Your task to perform on an android device: turn on the 12-hour format for clock Image 0: 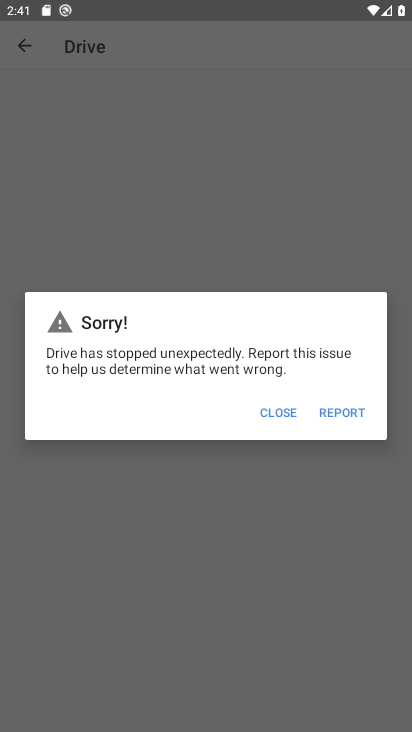
Step 0: click (271, 409)
Your task to perform on an android device: turn on the 12-hour format for clock Image 1: 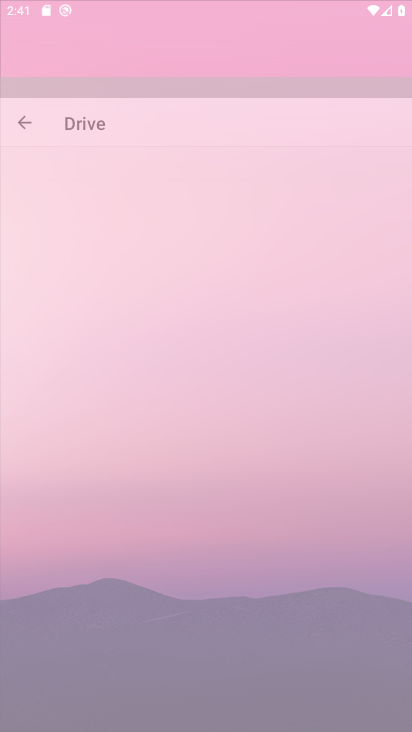
Step 1: click (284, 406)
Your task to perform on an android device: turn on the 12-hour format for clock Image 2: 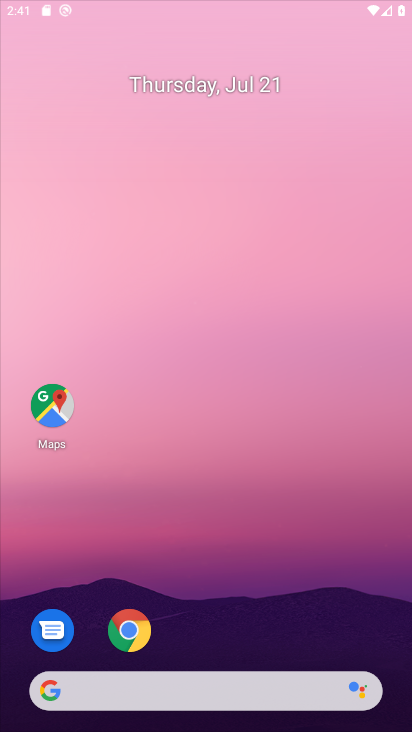
Step 2: click (284, 406)
Your task to perform on an android device: turn on the 12-hour format for clock Image 3: 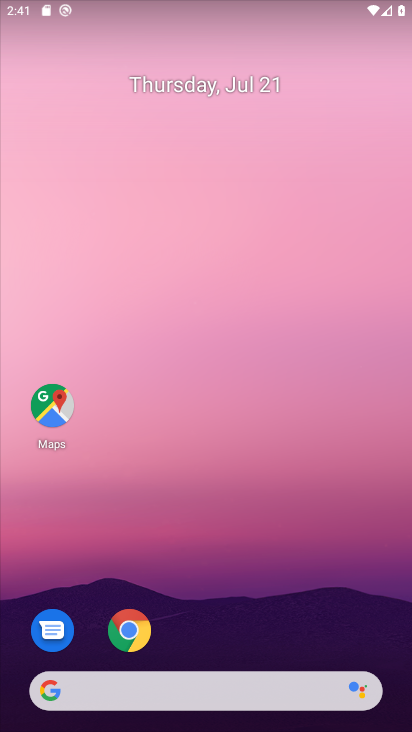
Step 3: click (205, 240)
Your task to perform on an android device: turn on the 12-hour format for clock Image 4: 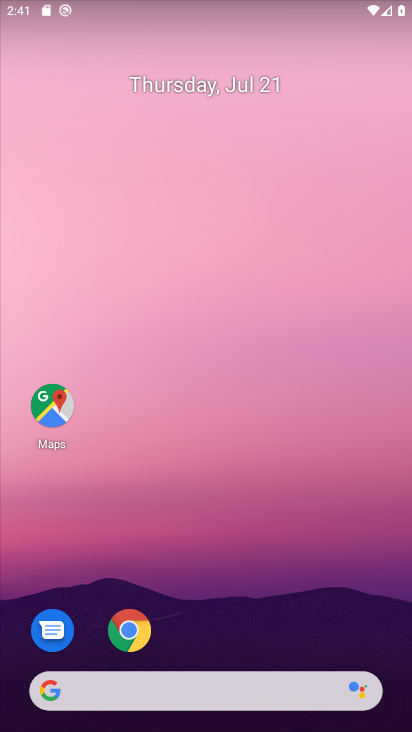
Step 4: drag from (259, 493) to (180, 141)
Your task to perform on an android device: turn on the 12-hour format for clock Image 5: 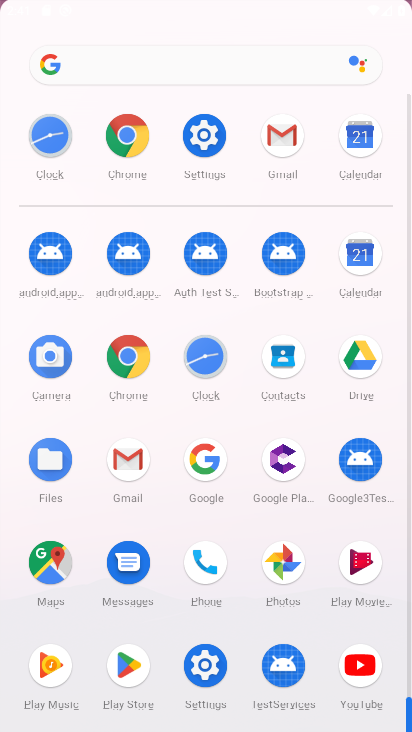
Step 5: drag from (218, 444) to (229, 129)
Your task to perform on an android device: turn on the 12-hour format for clock Image 6: 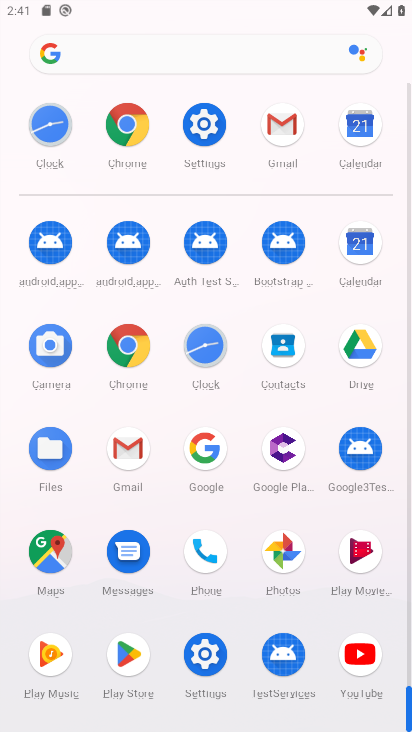
Step 6: click (210, 342)
Your task to perform on an android device: turn on the 12-hour format for clock Image 7: 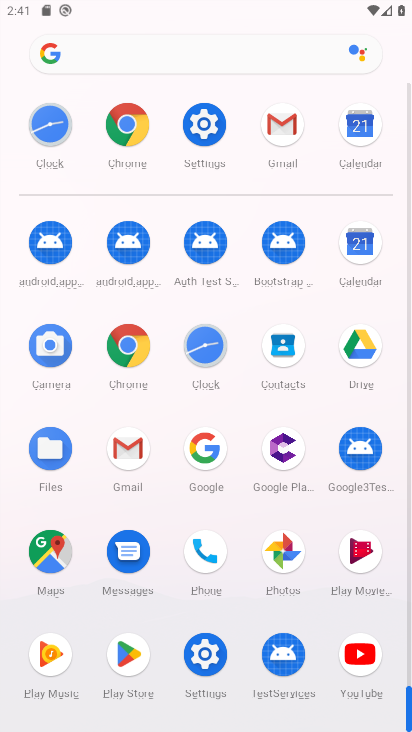
Step 7: click (210, 342)
Your task to perform on an android device: turn on the 12-hour format for clock Image 8: 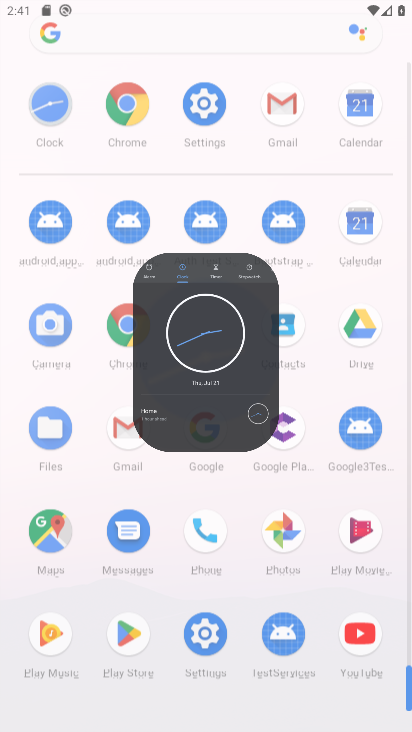
Step 8: click (210, 342)
Your task to perform on an android device: turn on the 12-hour format for clock Image 9: 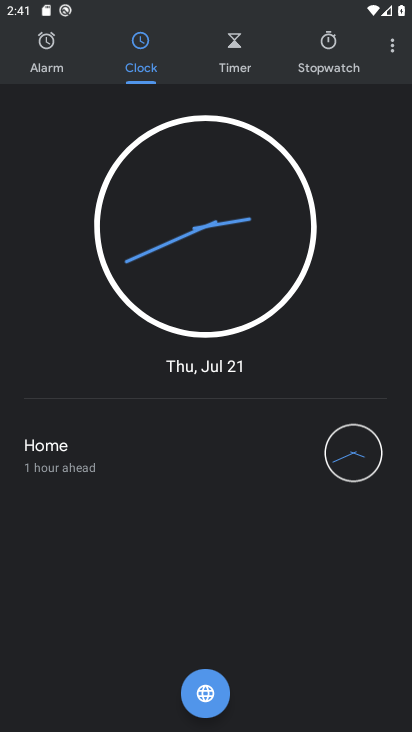
Step 9: click (388, 54)
Your task to perform on an android device: turn on the 12-hour format for clock Image 10: 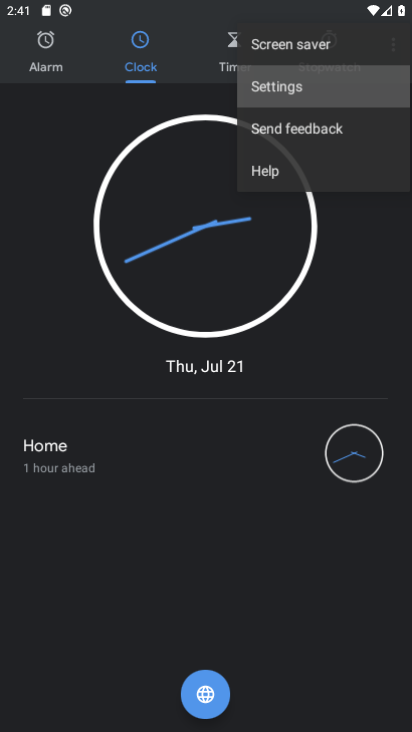
Step 10: click (396, 41)
Your task to perform on an android device: turn on the 12-hour format for clock Image 11: 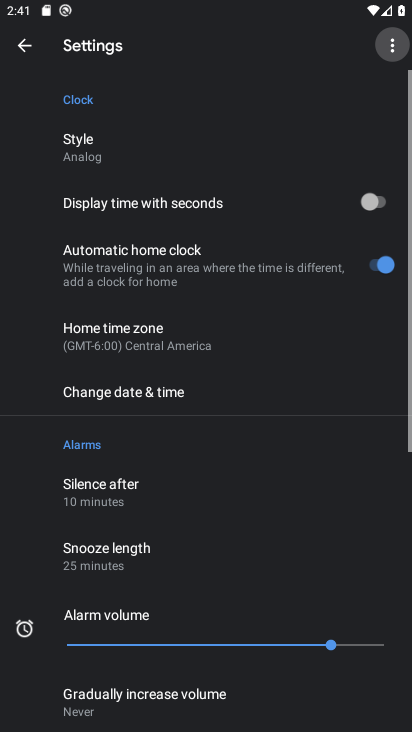
Step 11: click (396, 41)
Your task to perform on an android device: turn on the 12-hour format for clock Image 12: 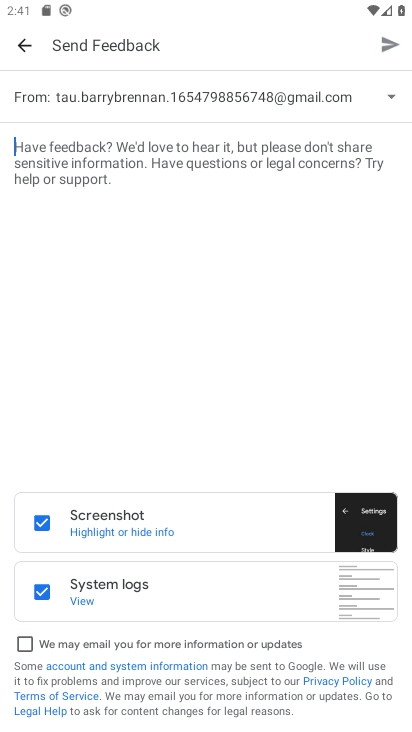
Step 12: click (12, 51)
Your task to perform on an android device: turn on the 12-hour format for clock Image 13: 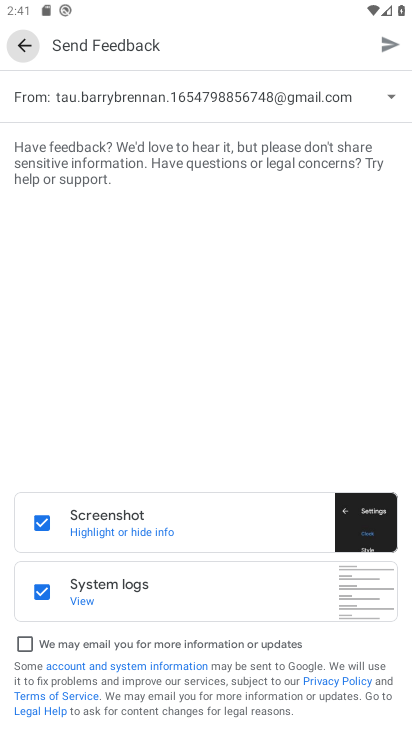
Step 13: click (20, 56)
Your task to perform on an android device: turn on the 12-hour format for clock Image 14: 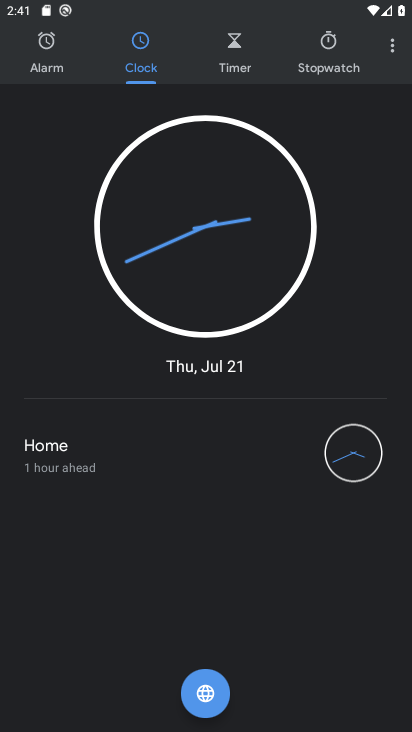
Step 14: click (385, 44)
Your task to perform on an android device: turn on the 12-hour format for clock Image 15: 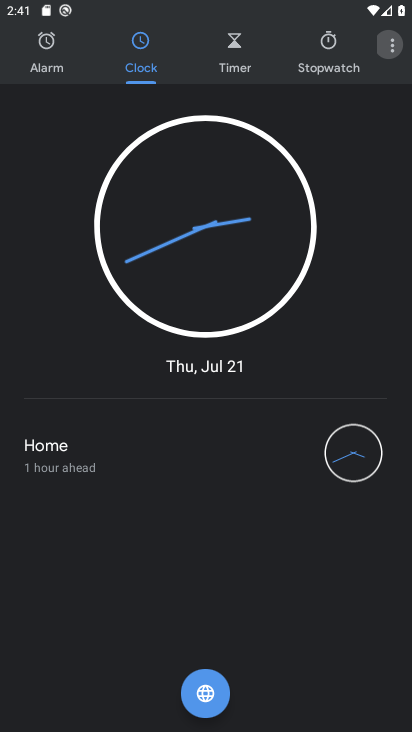
Step 15: click (385, 44)
Your task to perform on an android device: turn on the 12-hour format for clock Image 16: 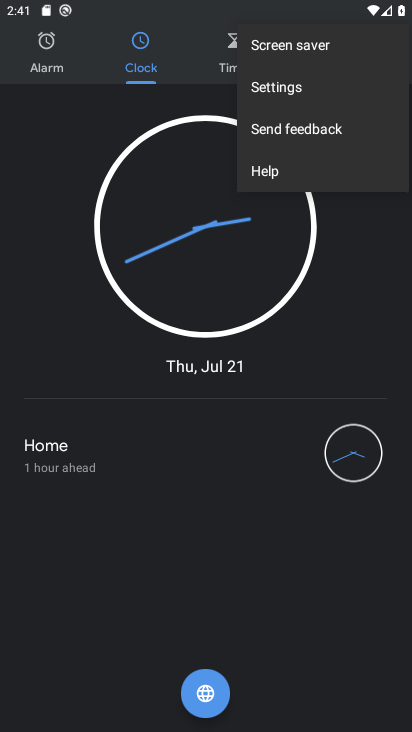
Step 16: click (304, 90)
Your task to perform on an android device: turn on the 12-hour format for clock Image 17: 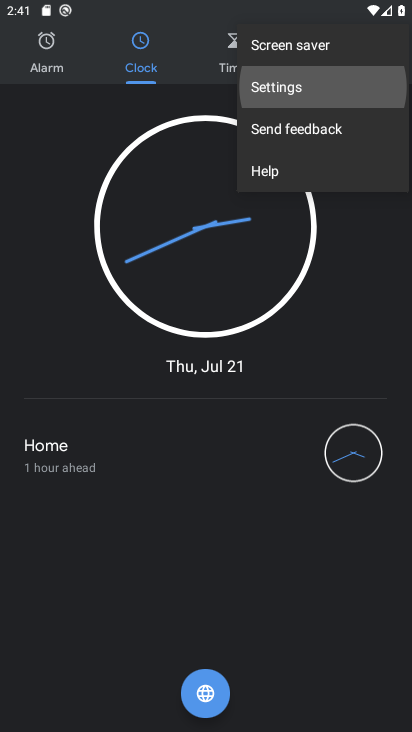
Step 17: click (302, 89)
Your task to perform on an android device: turn on the 12-hour format for clock Image 18: 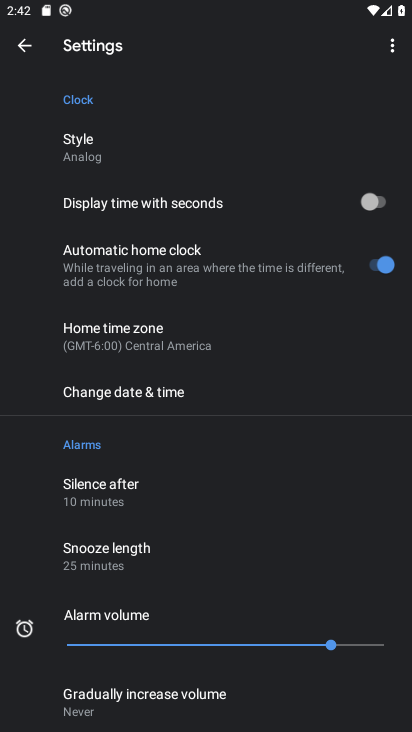
Step 18: click (97, 392)
Your task to perform on an android device: turn on the 12-hour format for clock Image 19: 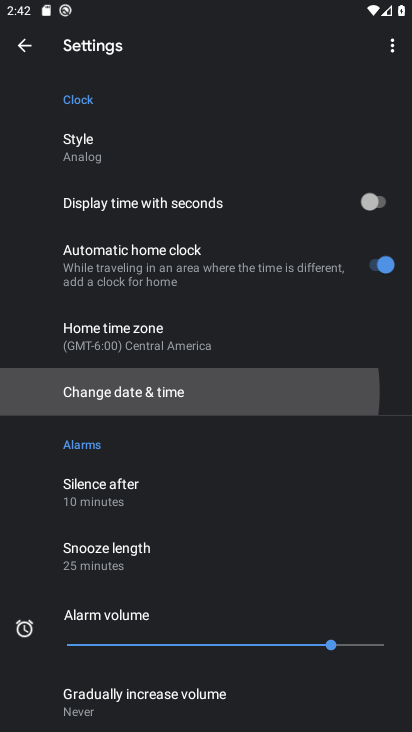
Step 19: click (99, 392)
Your task to perform on an android device: turn on the 12-hour format for clock Image 20: 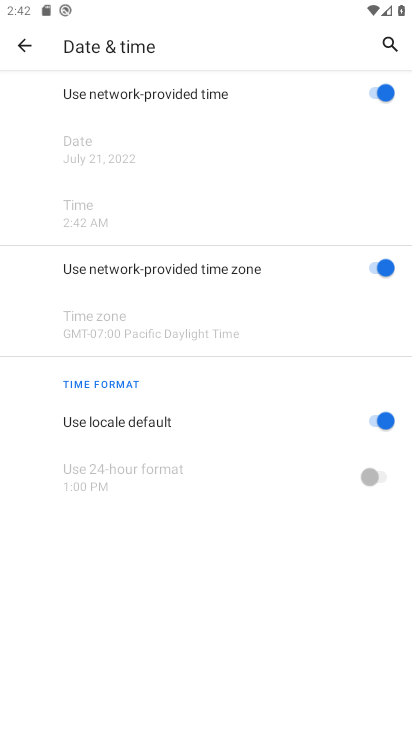
Step 20: task complete